Your task to perform on an android device: Empty the shopping cart on newegg.com. Image 0: 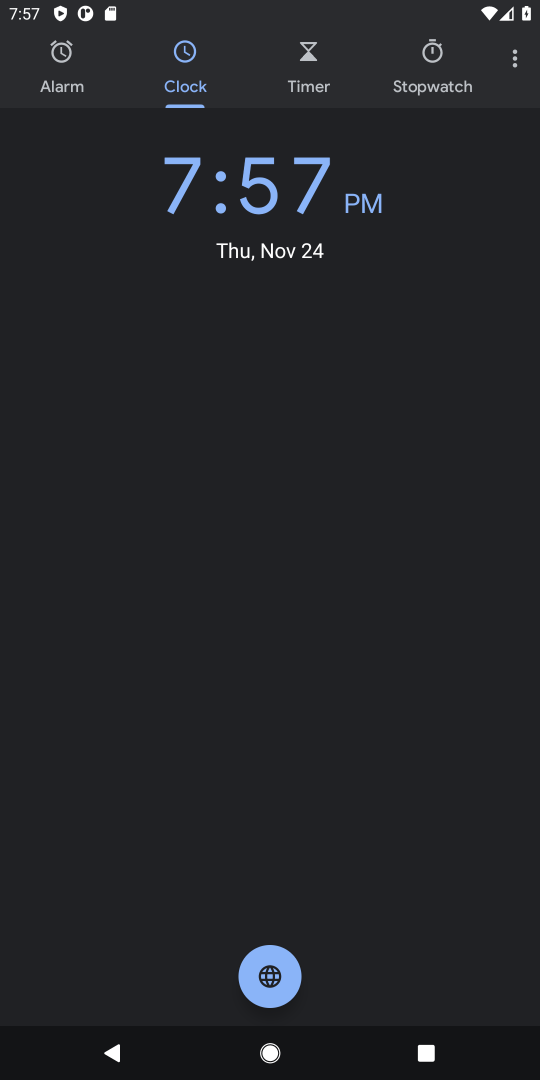
Step 0: press home button
Your task to perform on an android device: Empty the shopping cart on newegg.com. Image 1: 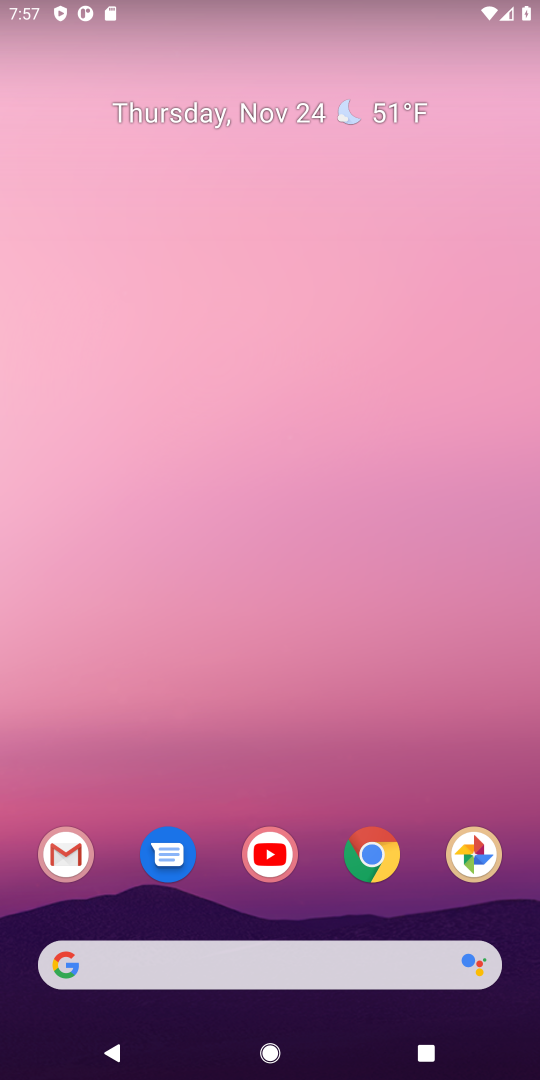
Step 1: click (390, 855)
Your task to perform on an android device: Empty the shopping cart on newegg.com. Image 2: 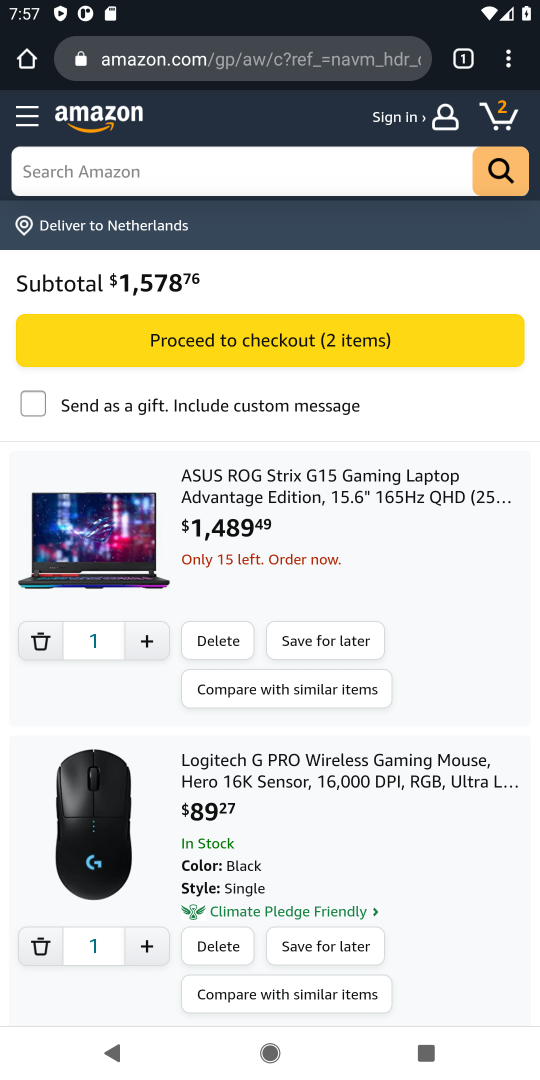
Step 2: click (222, 61)
Your task to perform on an android device: Empty the shopping cart on newegg.com. Image 3: 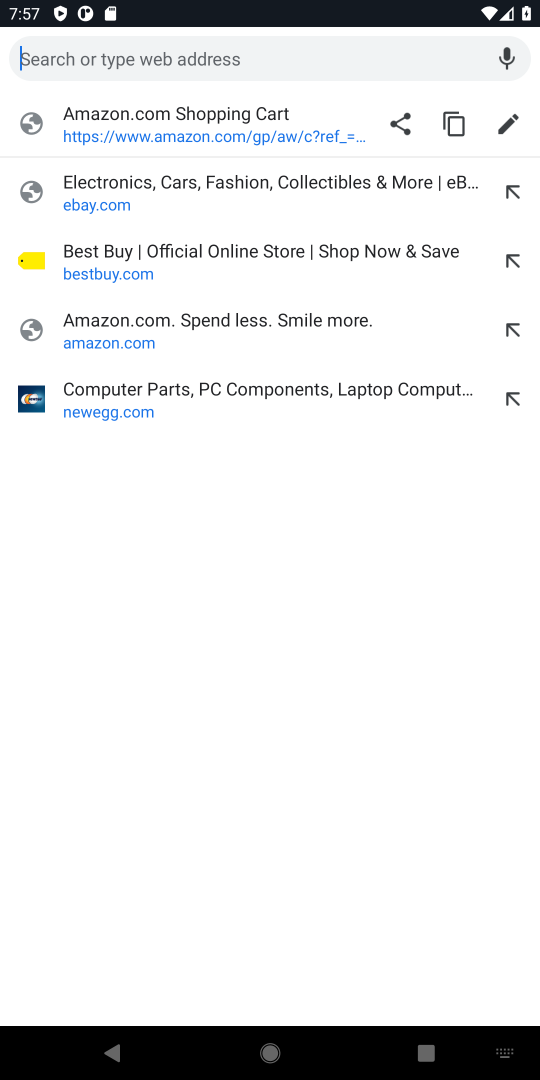
Step 3: click (68, 401)
Your task to perform on an android device: Empty the shopping cart on newegg.com. Image 4: 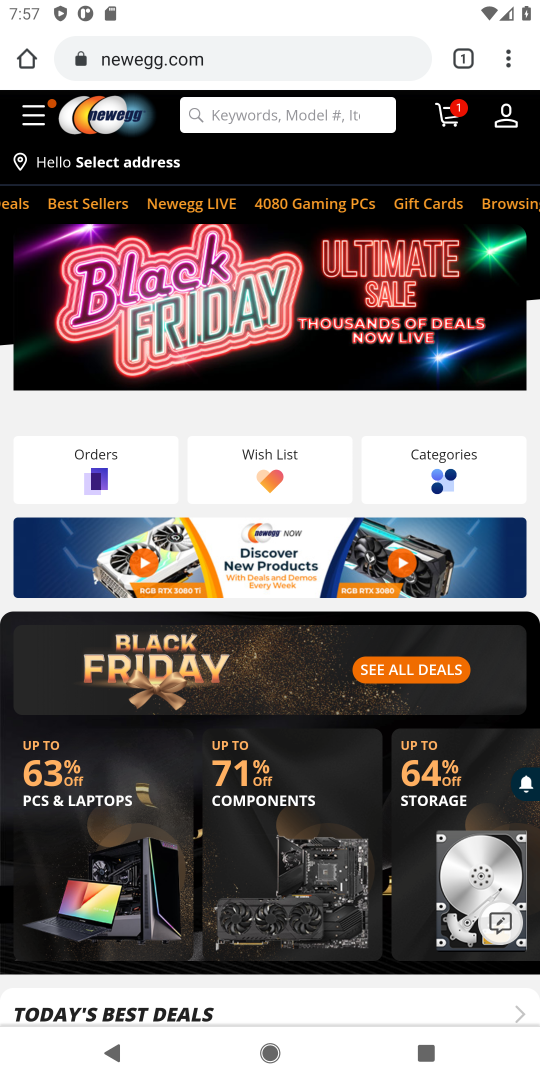
Step 4: click (448, 117)
Your task to perform on an android device: Empty the shopping cart on newegg.com. Image 5: 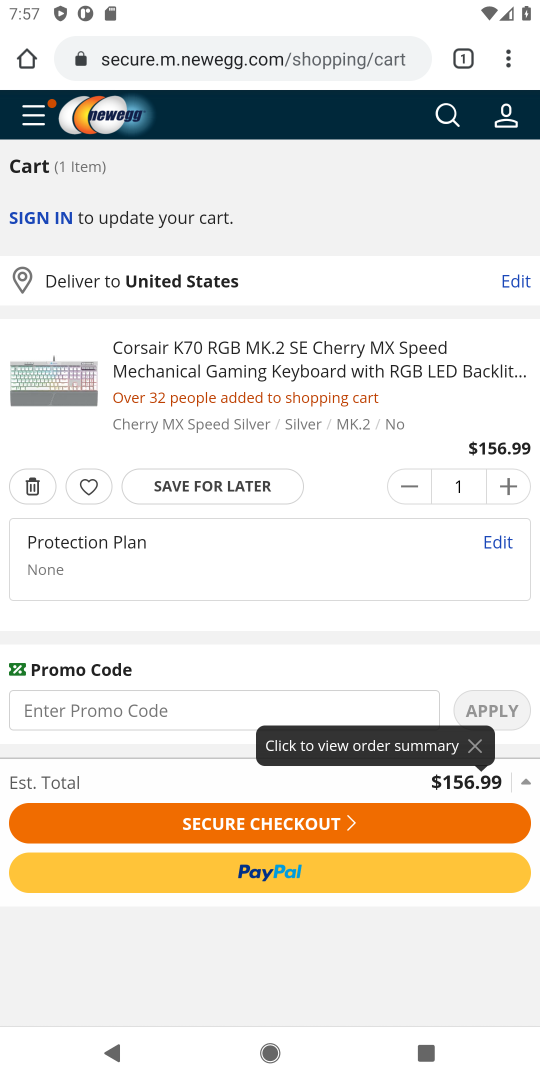
Step 5: click (26, 486)
Your task to perform on an android device: Empty the shopping cart on newegg.com. Image 6: 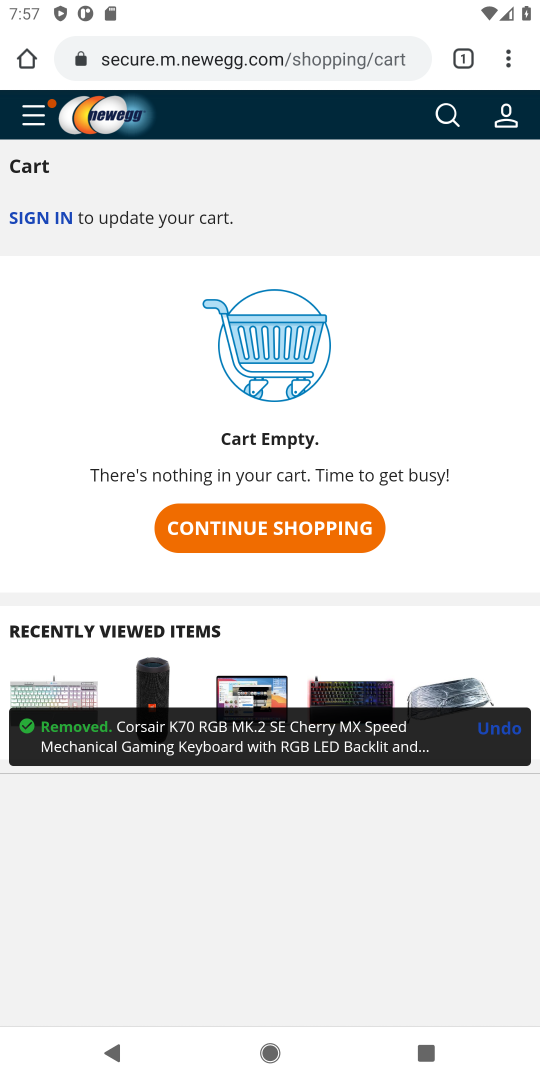
Step 6: task complete